Your task to perform on an android device: open app "Pandora - Music & Podcasts" (install if not already installed), go to login, and select forgot password Image 0: 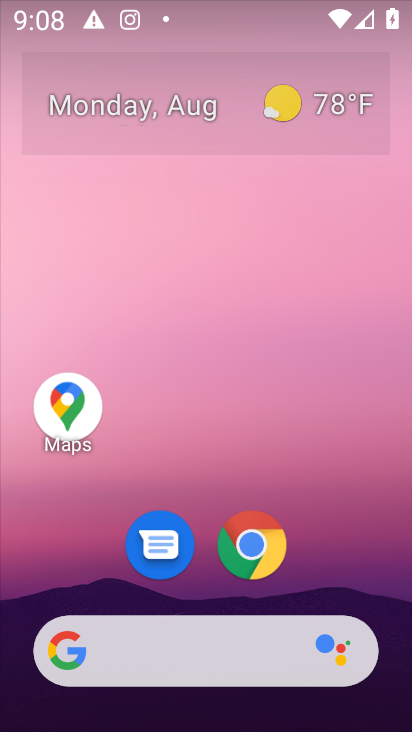
Step 0: press home button
Your task to perform on an android device: open app "Pandora - Music & Podcasts" (install if not already installed), go to login, and select forgot password Image 1: 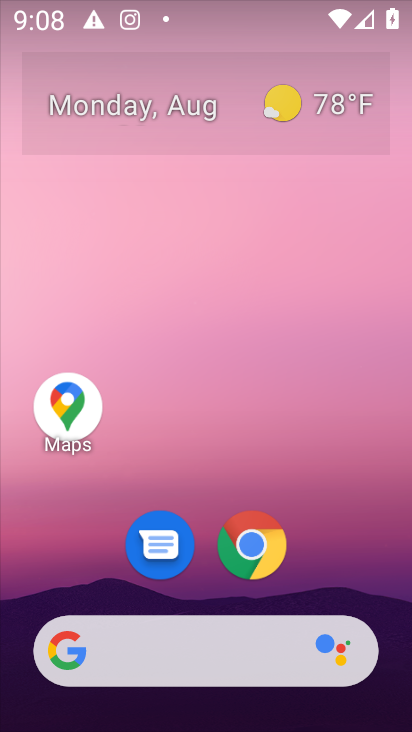
Step 1: drag from (349, 499) to (350, 104)
Your task to perform on an android device: open app "Pandora - Music & Podcasts" (install if not already installed), go to login, and select forgot password Image 2: 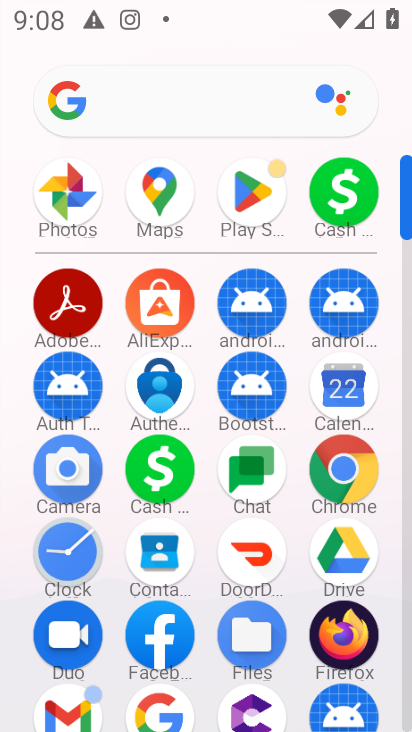
Step 2: click (243, 189)
Your task to perform on an android device: open app "Pandora - Music & Podcasts" (install if not already installed), go to login, and select forgot password Image 3: 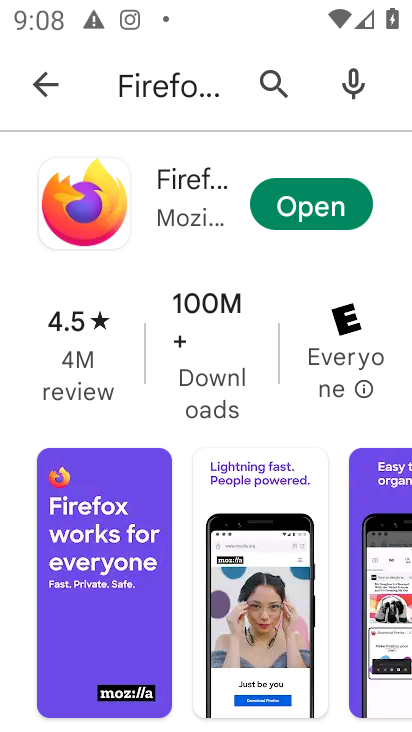
Step 3: press back button
Your task to perform on an android device: open app "Pandora - Music & Podcasts" (install if not already installed), go to login, and select forgot password Image 4: 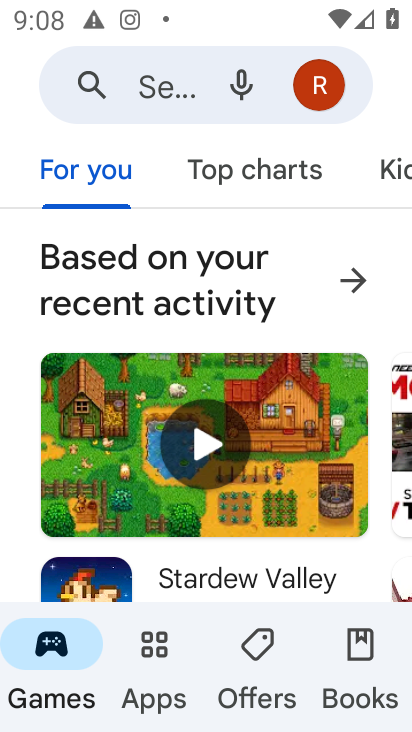
Step 4: click (148, 97)
Your task to perform on an android device: open app "Pandora - Music & Podcasts" (install if not already installed), go to login, and select forgot password Image 5: 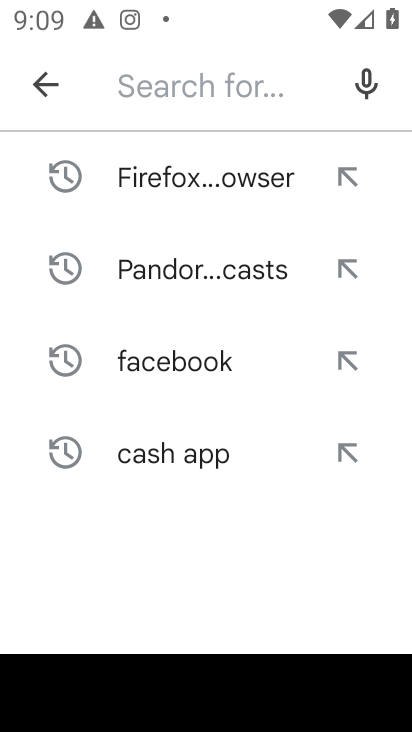
Step 5: type "Pandora - Music & Podcasts"
Your task to perform on an android device: open app "Pandora - Music & Podcasts" (install if not already installed), go to login, and select forgot password Image 6: 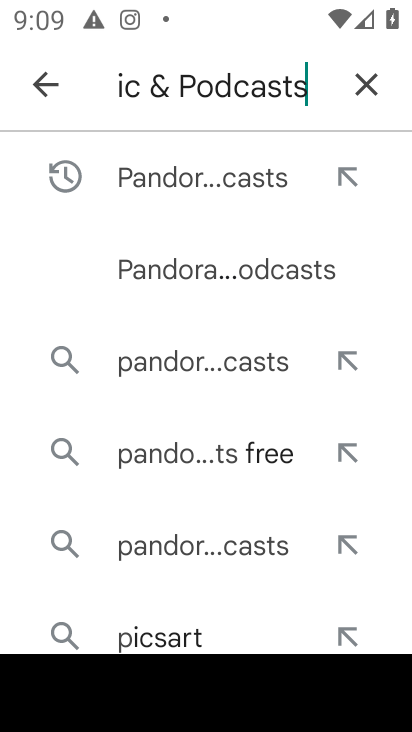
Step 6: press enter
Your task to perform on an android device: open app "Pandora - Music & Podcasts" (install if not already installed), go to login, and select forgot password Image 7: 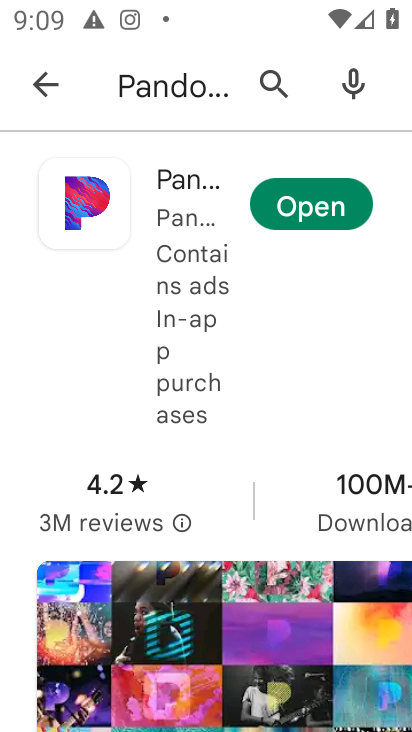
Step 7: click (302, 206)
Your task to perform on an android device: open app "Pandora - Music & Podcasts" (install if not already installed), go to login, and select forgot password Image 8: 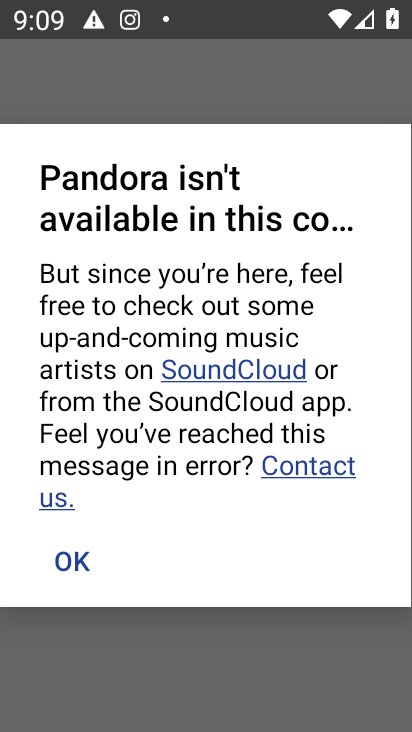
Step 8: click (64, 572)
Your task to perform on an android device: open app "Pandora - Music & Podcasts" (install if not already installed), go to login, and select forgot password Image 9: 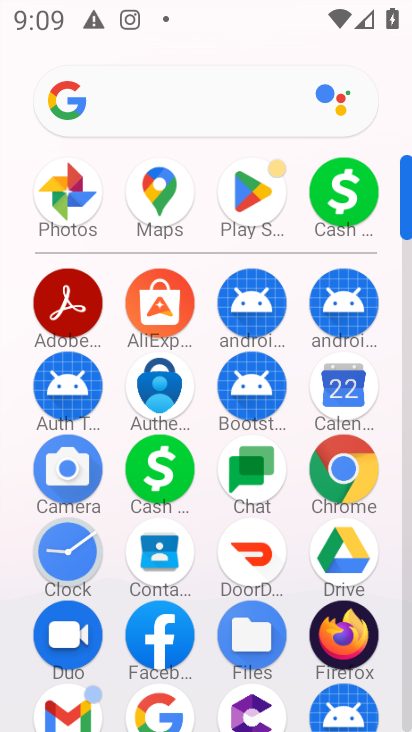
Step 9: click (252, 187)
Your task to perform on an android device: open app "Pandora - Music & Podcasts" (install if not already installed), go to login, and select forgot password Image 10: 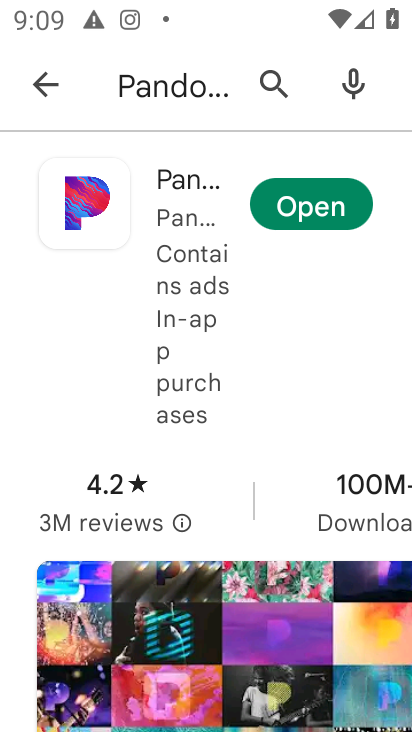
Step 10: click (316, 214)
Your task to perform on an android device: open app "Pandora - Music & Podcasts" (install if not already installed), go to login, and select forgot password Image 11: 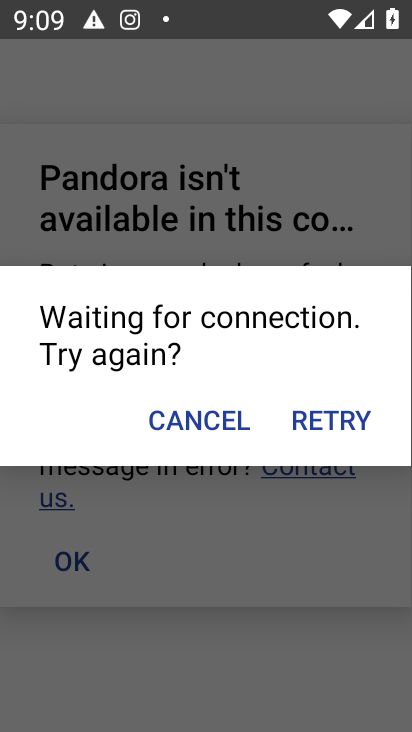
Step 11: task complete